Your task to perform on an android device: remove spam from my inbox in the gmail app Image 0: 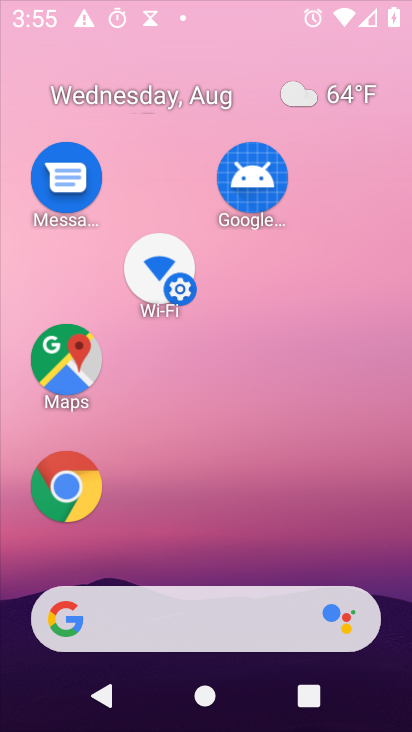
Step 0: press home button
Your task to perform on an android device: remove spam from my inbox in the gmail app Image 1: 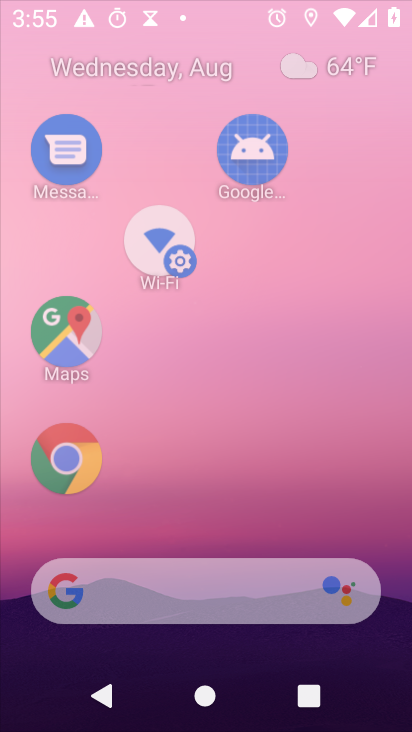
Step 1: drag from (257, 530) to (277, 14)
Your task to perform on an android device: remove spam from my inbox in the gmail app Image 2: 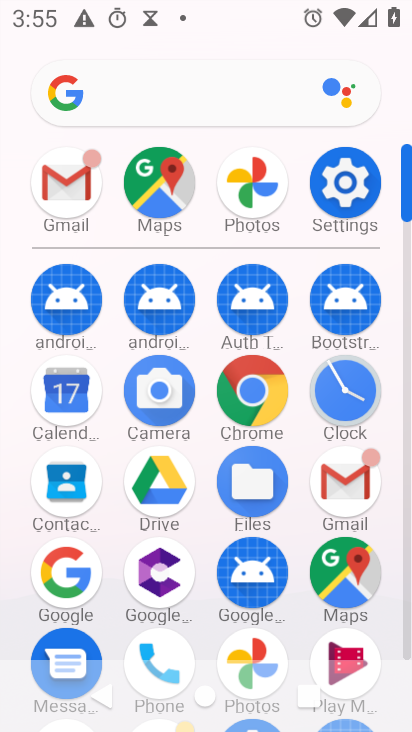
Step 2: click (83, 179)
Your task to perform on an android device: remove spam from my inbox in the gmail app Image 3: 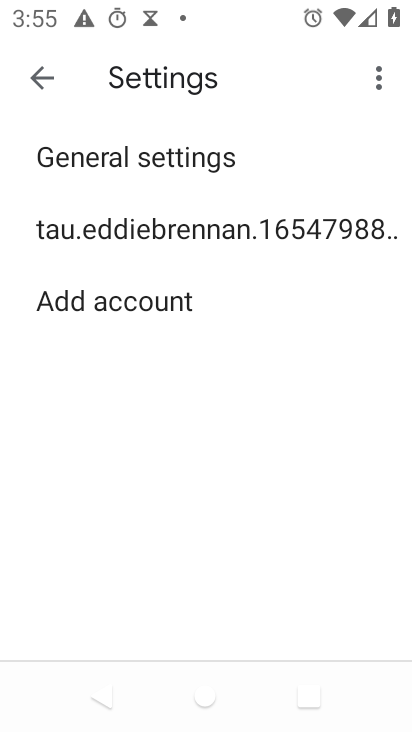
Step 3: press back button
Your task to perform on an android device: remove spam from my inbox in the gmail app Image 4: 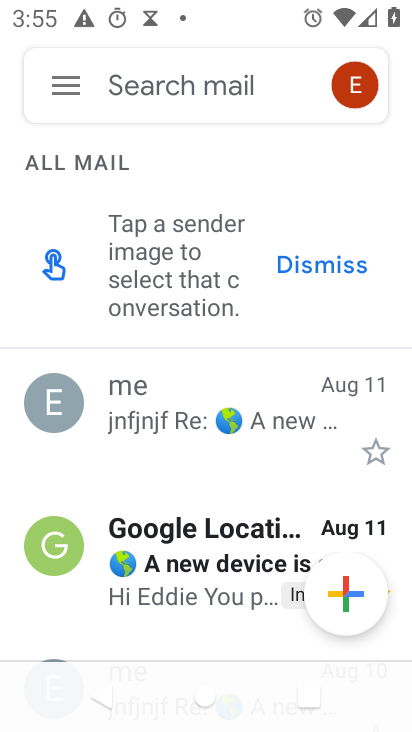
Step 4: click (63, 81)
Your task to perform on an android device: remove spam from my inbox in the gmail app Image 5: 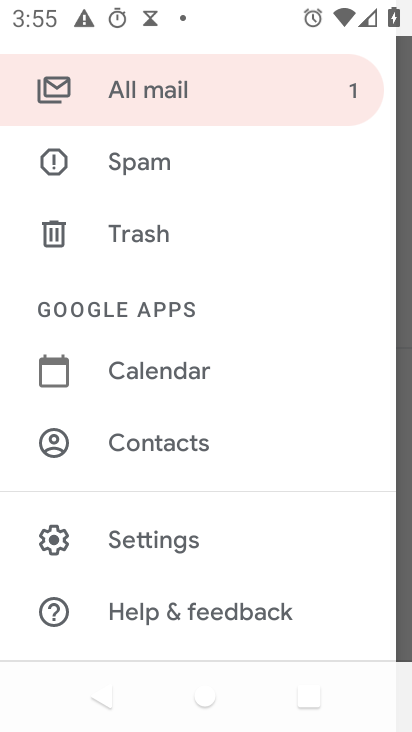
Step 5: click (146, 170)
Your task to perform on an android device: remove spam from my inbox in the gmail app Image 6: 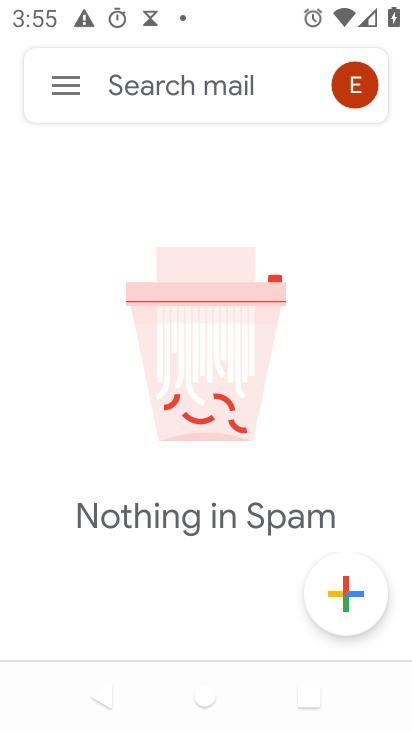
Step 6: task complete